Your task to perform on an android device: Open the calendar and show me this week's events? Image 0: 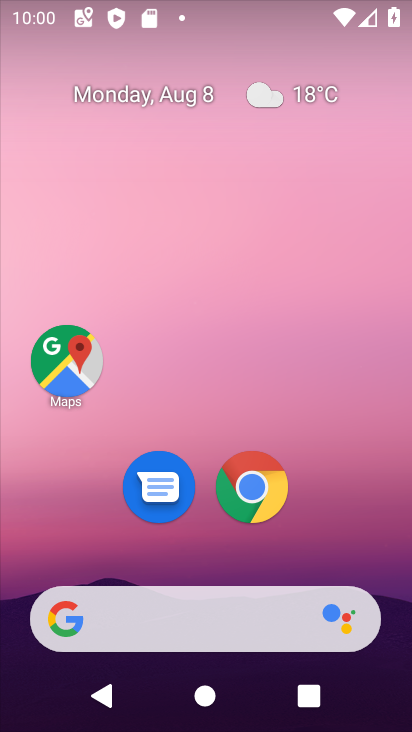
Step 0: drag from (211, 576) to (206, 89)
Your task to perform on an android device: Open the calendar and show me this week's events? Image 1: 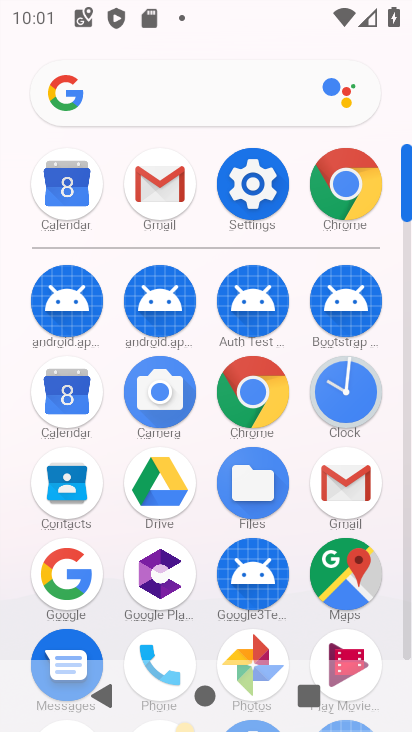
Step 1: click (60, 388)
Your task to perform on an android device: Open the calendar and show me this week's events? Image 2: 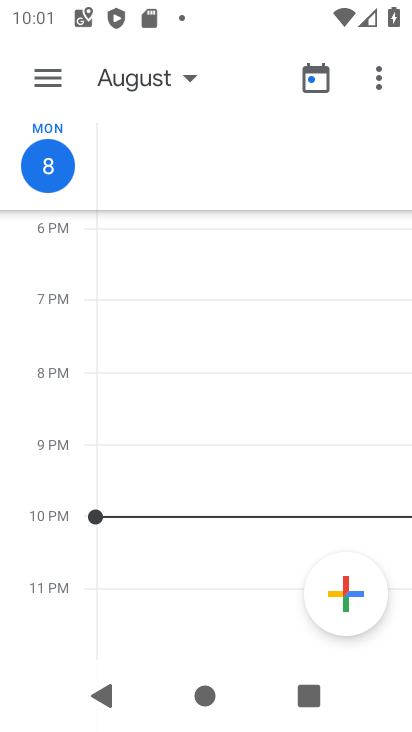
Step 2: click (188, 81)
Your task to perform on an android device: Open the calendar and show me this week's events? Image 3: 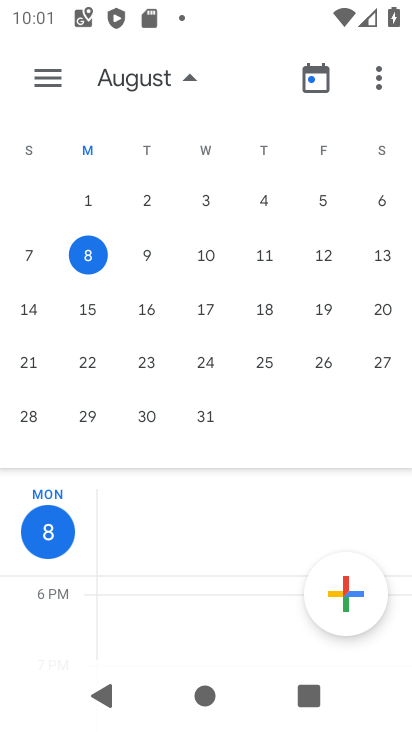
Step 3: click (51, 71)
Your task to perform on an android device: Open the calendar and show me this week's events? Image 4: 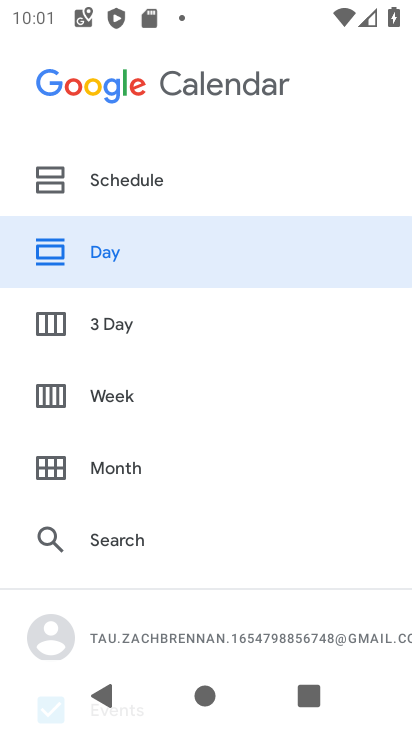
Step 4: click (105, 390)
Your task to perform on an android device: Open the calendar and show me this week's events? Image 5: 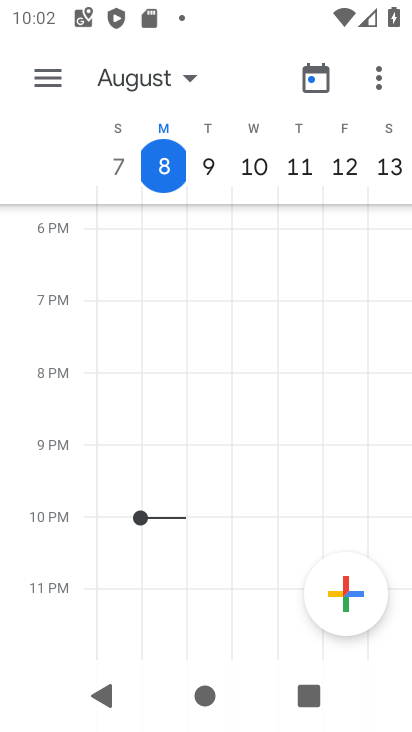
Step 5: task complete